Your task to perform on an android device: refresh tabs in the chrome app Image 0: 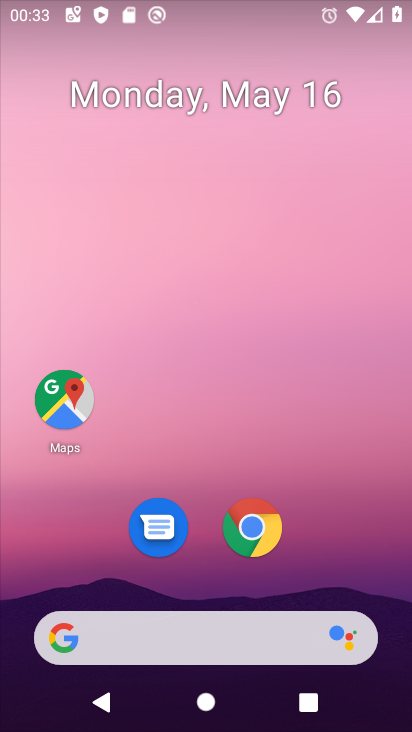
Step 0: click (274, 540)
Your task to perform on an android device: refresh tabs in the chrome app Image 1: 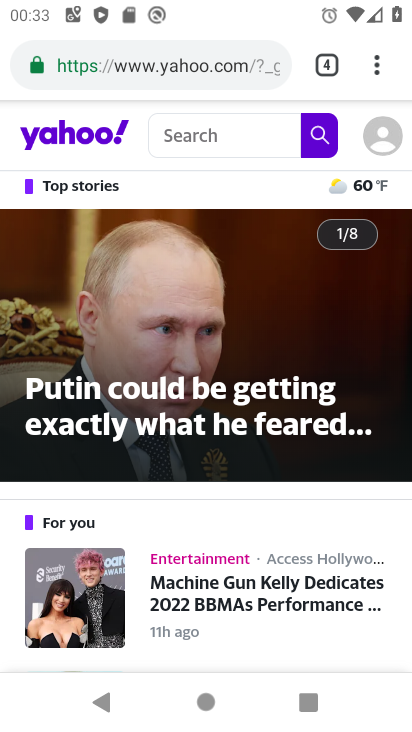
Step 1: click (364, 72)
Your task to perform on an android device: refresh tabs in the chrome app Image 2: 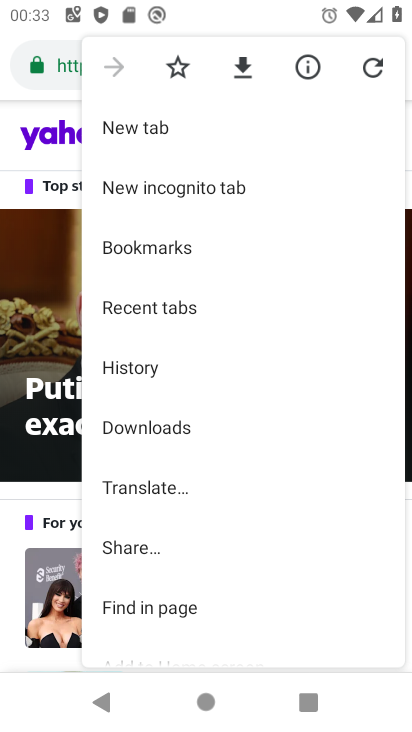
Step 2: click (167, 120)
Your task to perform on an android device: refresh tabs in the chrome app Image 3: 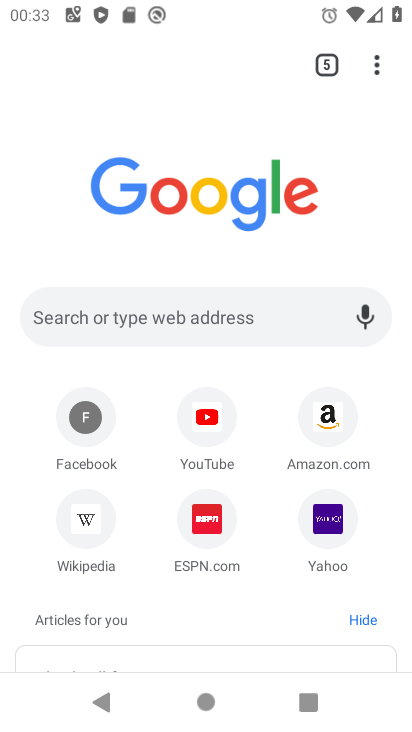
Step 3: task complete